Your task to perform on an android device: add a label to a message in the gmail app Image 0: 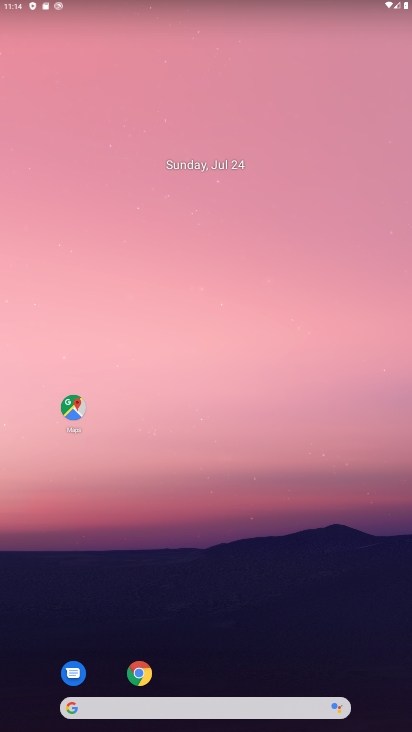
Step 0: drag from (300, 568) to (207, 4)
Your task to perform on an android device: add a label to a message in the gmail app Image 1: 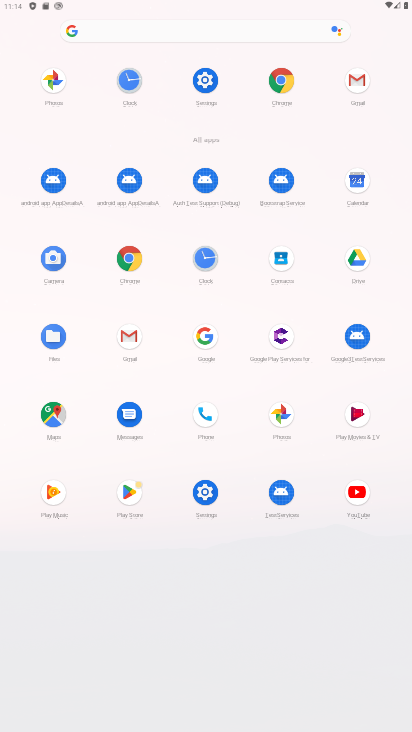
Step 1: click (364, 79)
Your task to perform on an android device: add a label to a message in the gmail app Image 2: 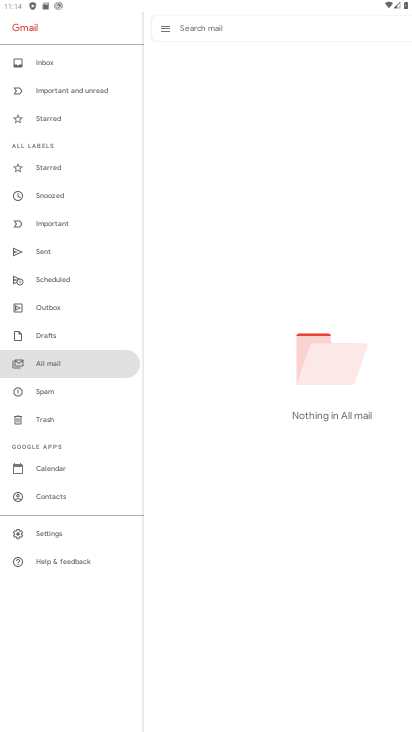
Step 2: task complete